Your task to perform on an android device: delete browsing data in the chrome app Image 0: 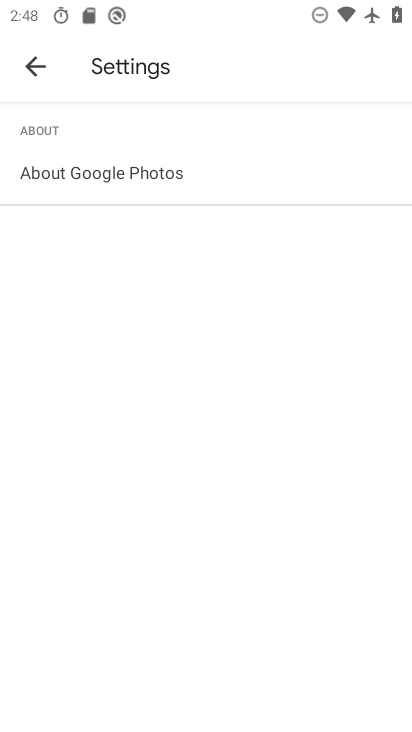
Step 0: press home button
Your task to perform on an android device: delete browsing data in the chrome app Image 1: 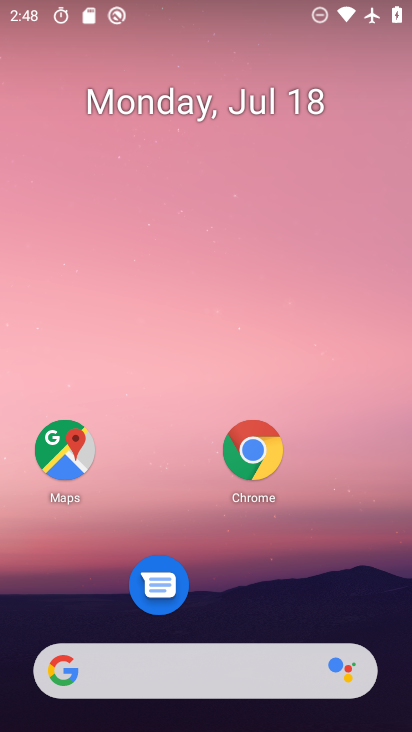
Step 1: click (239, 450)
Your task to perform on an android device: delete browsing data in the chrome app Image 2: 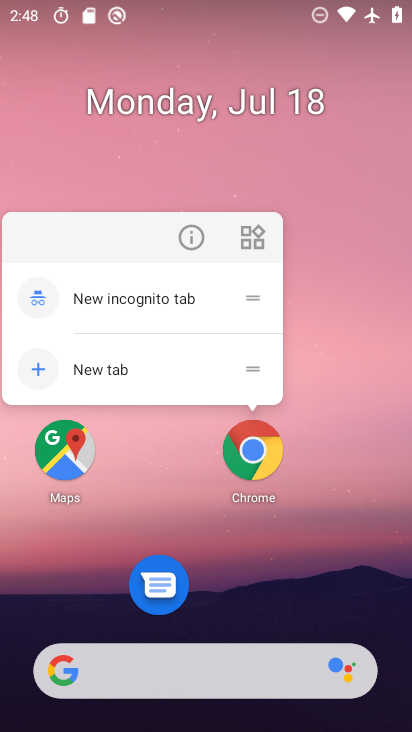
Step 2: click (266, 462)
Your task to perform on an android device: delete browsing data in the chrome app Image 3: 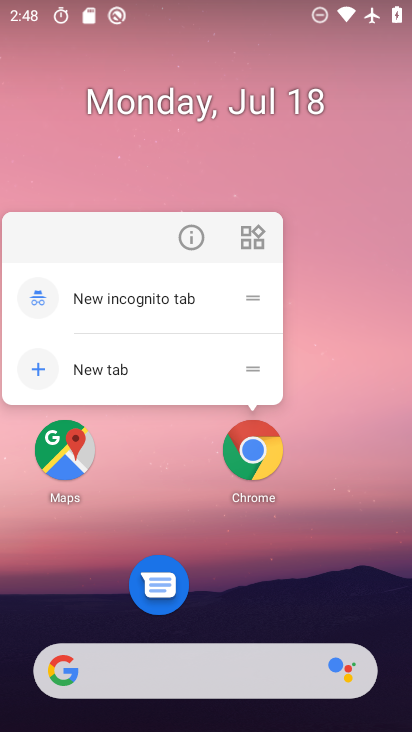
Step 3: click (258, 457)
Your task to perform on an android device: delete browsing data in the chrome app Image 4: 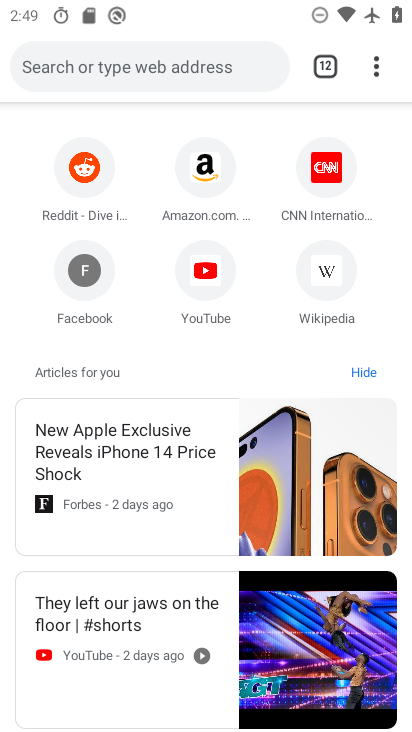
Step 4: drag from (370, 71) to (201, 567)
Your task to perform on an android device: delete browsing data in the chrome app Image 5: 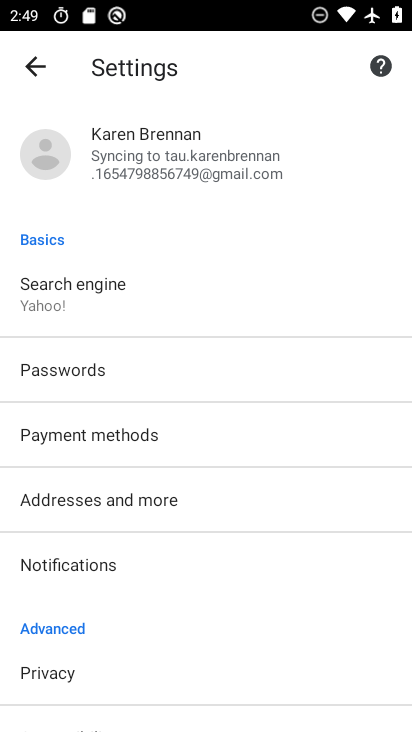
Step 5: click (46, 671)
Your task to perform on an android device: delete browsing data in the chrome app Image 6: 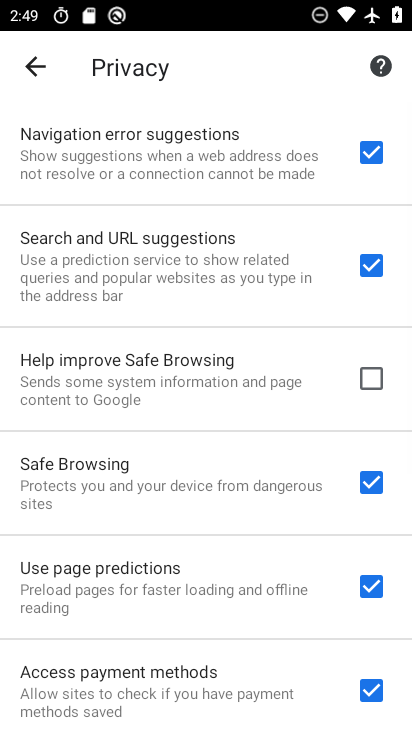
Step 6: drag from (133, 644) to (286, 5)
Your task to perform on an android device: delete browsing data in the chrome app Image 7: 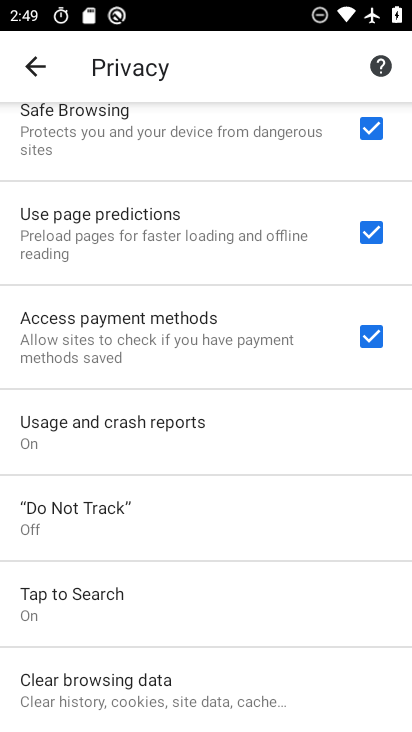
Step 7: drag from (158, 540) to (297, 107)
Your task to perform on an android device: delete browsing data in the chrome app Image 8: 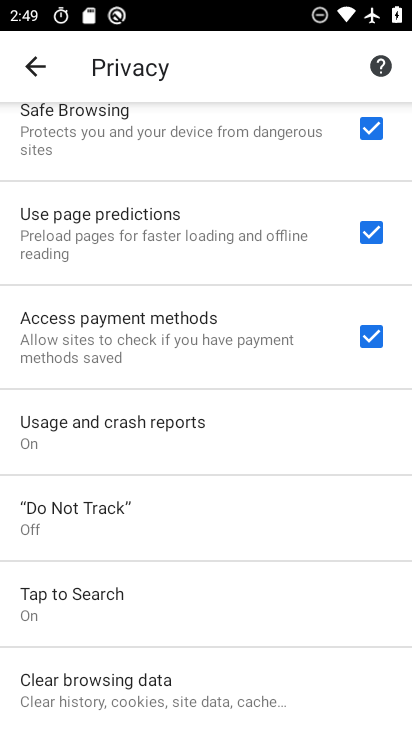
Step 8: click (158, 691)
Your task to perform on an android device: delete browsing data in the chrome app Image 9: 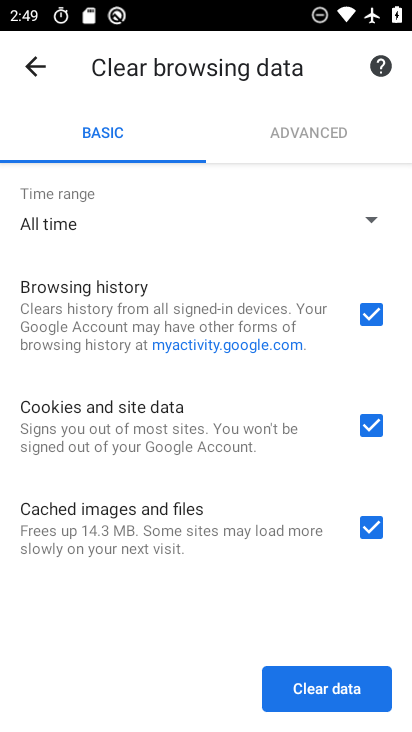
Step 9: click (320, 689)
Your task to perform on an android device: delete browsing data in the chrome app Image 10: 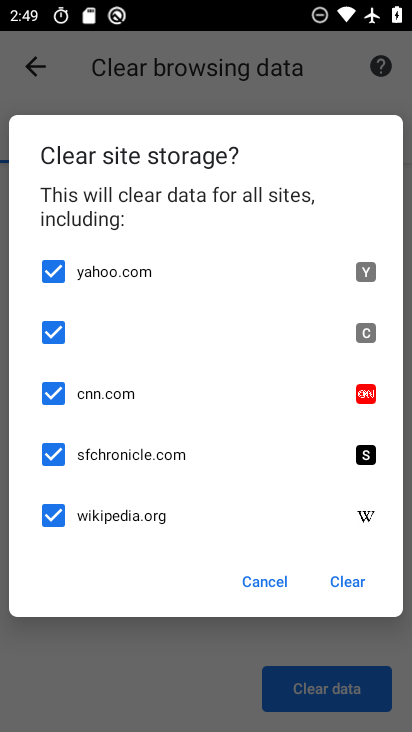
Step 10: click (341, 583)
Your task to perform on an android device: delete browsing data in the chrome app Image 11: 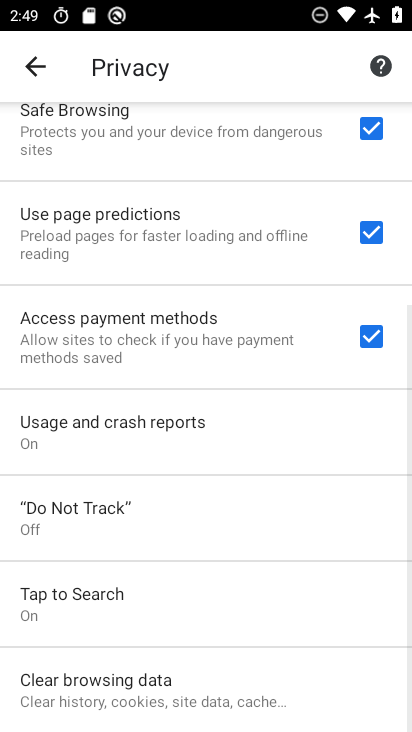
Step 11: task complete